Your task to perform on an android device: Search for seafood restaurants on Google Maps Image 0: 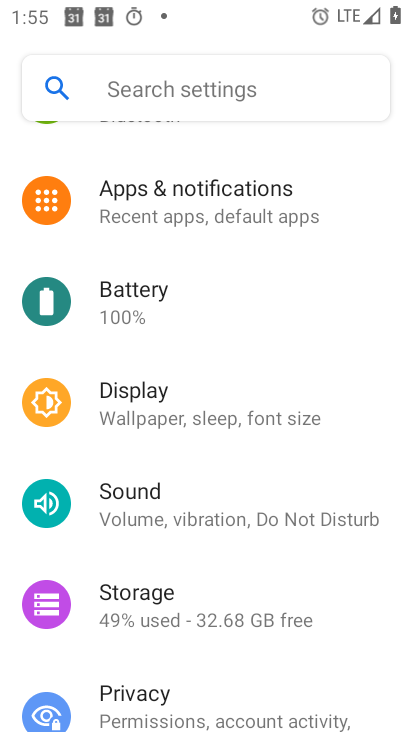
Step 0: press home button
Your task to perform on an android device: Search for seafood restaurants on Google Maps Image 1: 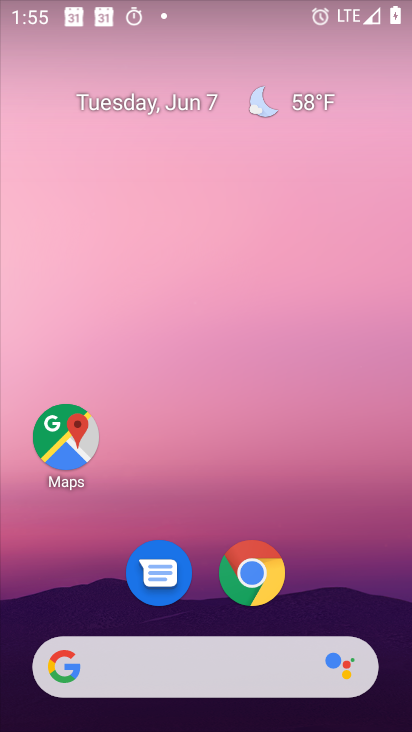
Step 1: click (63, 435)
Your task to perform on an android device: Search for seafood restaurants on Google Maps Image 2: 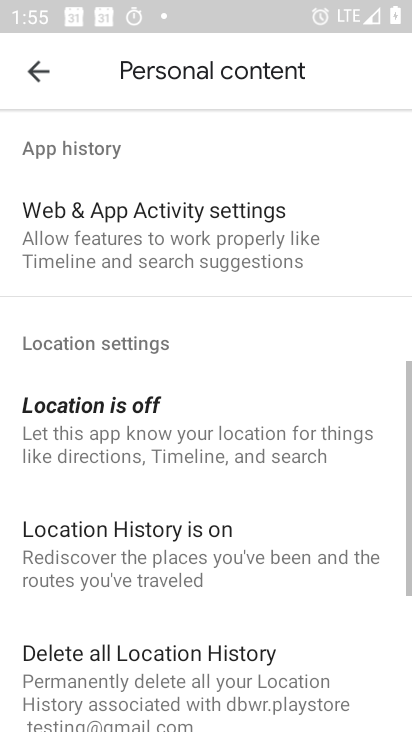
Step 2: click (45, 70)
Your task to perform on an android device: Search for seafood restaurants on Google Maps Image 3: 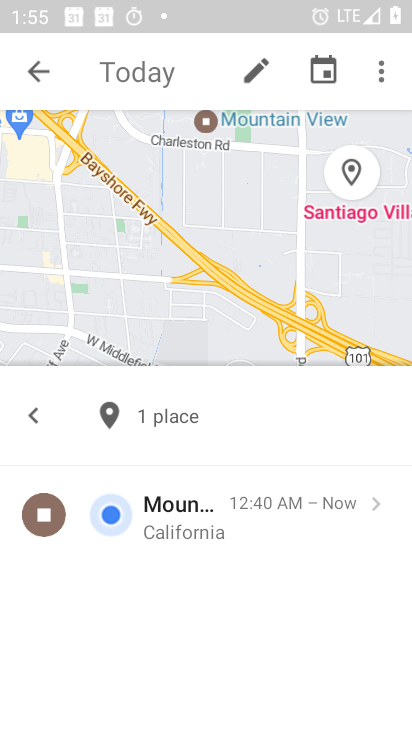
Step 3: click (40, 70)
Your task to perform on an android device: Search for seafood restaurants on Google Maps Image 4: 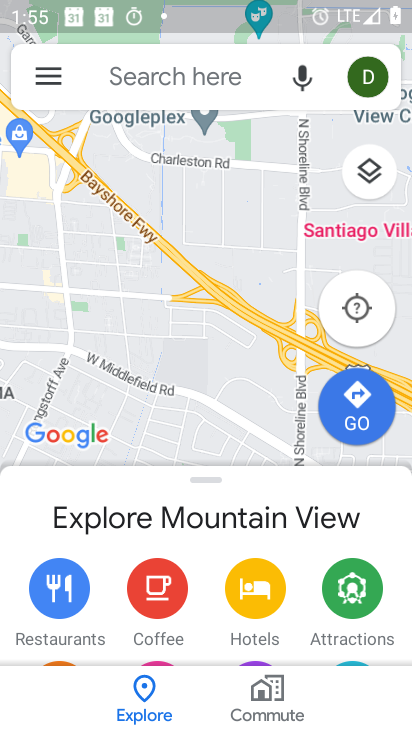
Step 4: click (107, 56)
Your task to perform on an android device: Search for seafood restaurants on Google Maps Image 5: 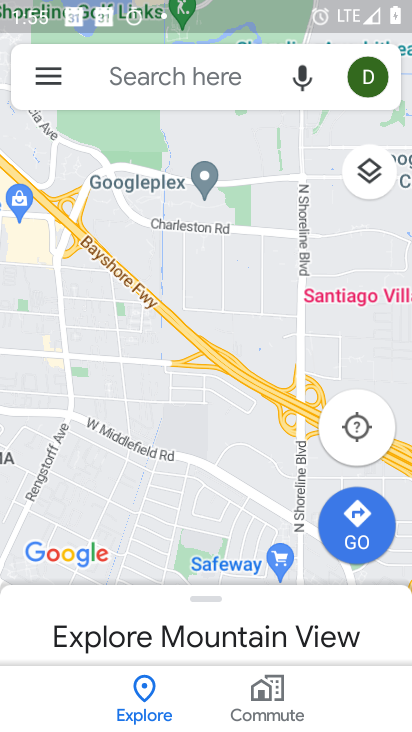
Step 5: click (148, 73)
Your task to perform on an android device: Search for seafood restaurants on Google Maps Image 6: 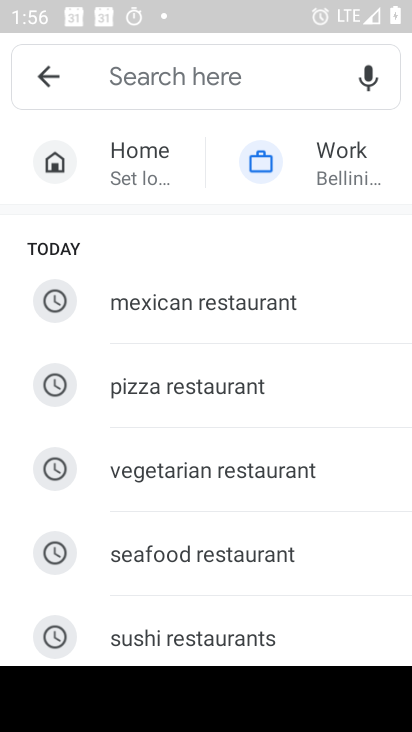
Step 6: type "seafood restaurants "
Your task to perform on an android device: Search for seafood restaurants on Google Maps Image 7: 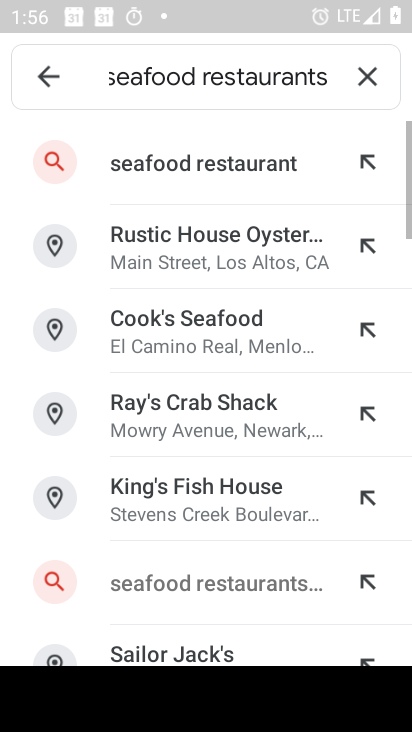
Step 7: click (184, 167)
Your task to perform on an android device: Search for seafood restaurants on Google Maps Image 8: 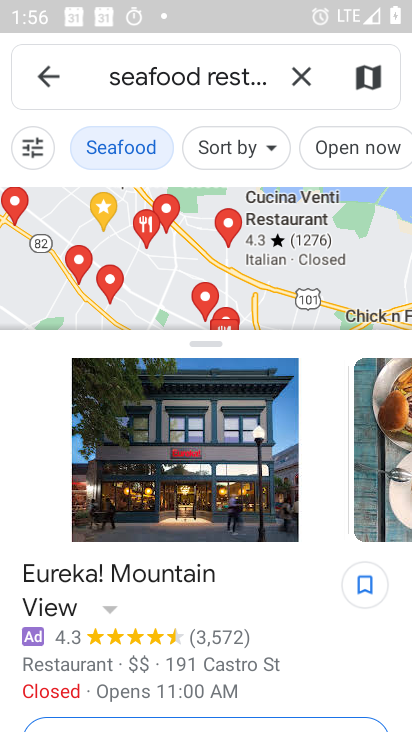
Step 8: task complete